Your task to perform on an android device: Go to eBay Image 0: 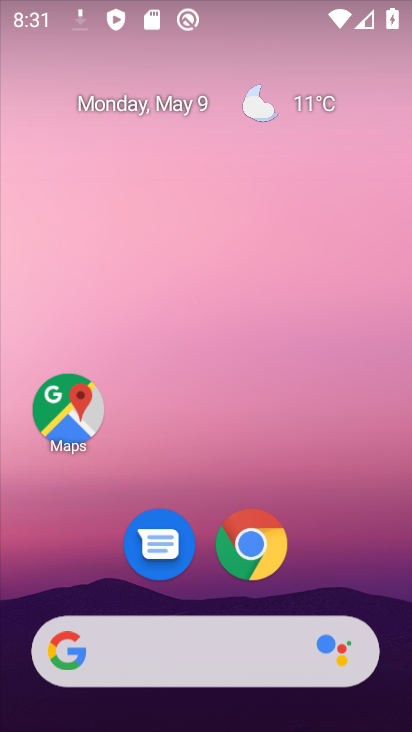
Step 0: click (244, 543)
Your task to perform on an android device: Go to eBay Image 1: 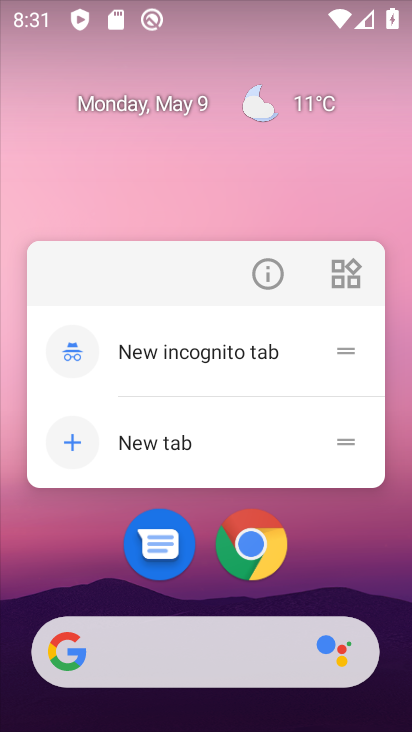
Step 1: click (249, 541)
Your task to perform on an android device: Go to eBay Image 2: 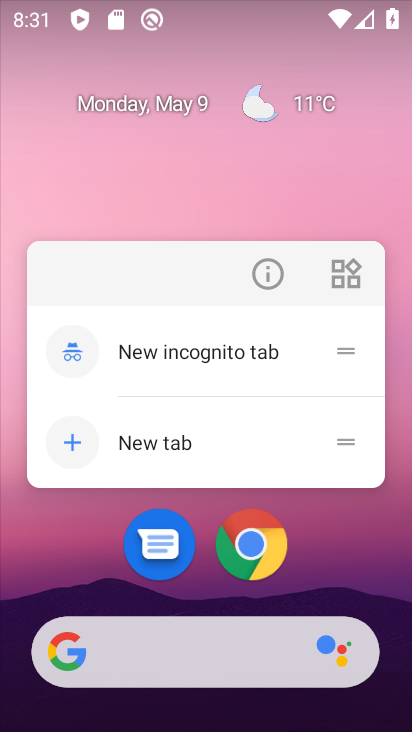
Step 2: click (253, 549)
Your task to perform on an android device: Go to eBay Image 3: 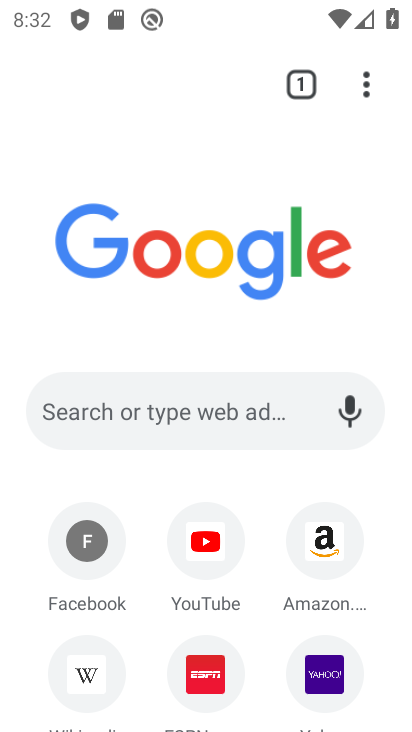
Step 3: click (145, 396)
Your task to perform on an android device: Go to eBay Image 4: 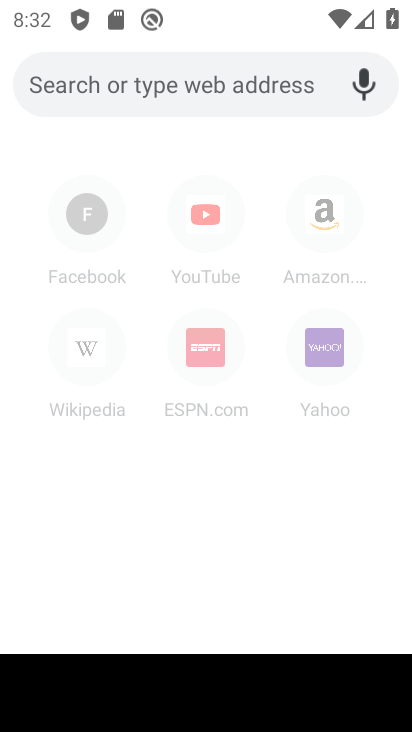
Step 4: type " eBay"
Your task to perform on an android device: Go to eBay Image 5: 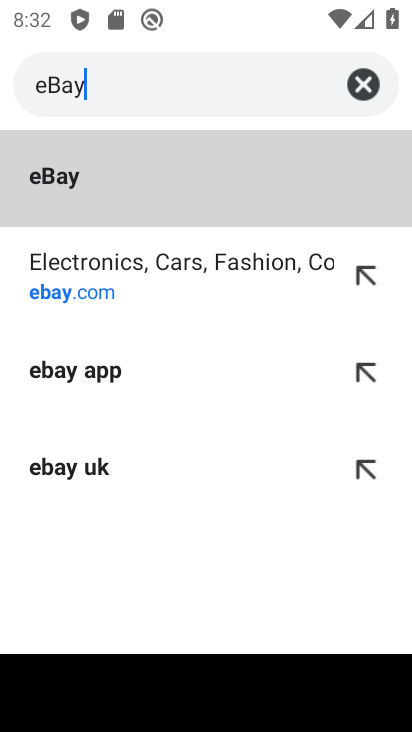
Step 5: click (45, 178)
Your task to perform on an android device: Go to eBay Image 6: 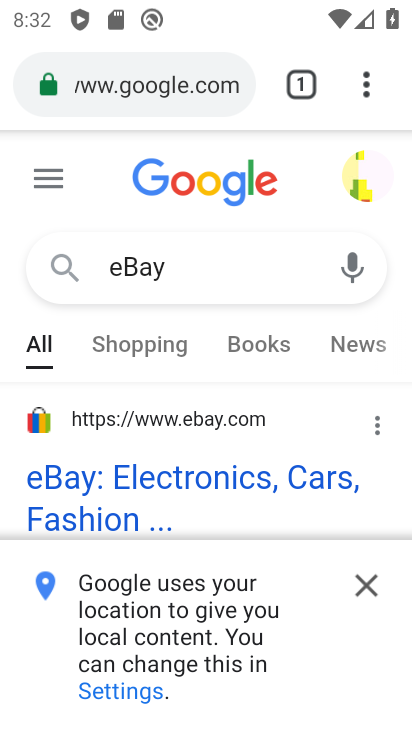
Step 6: task complete